Your task to perform on an android device: Go to Android settings Image 0: 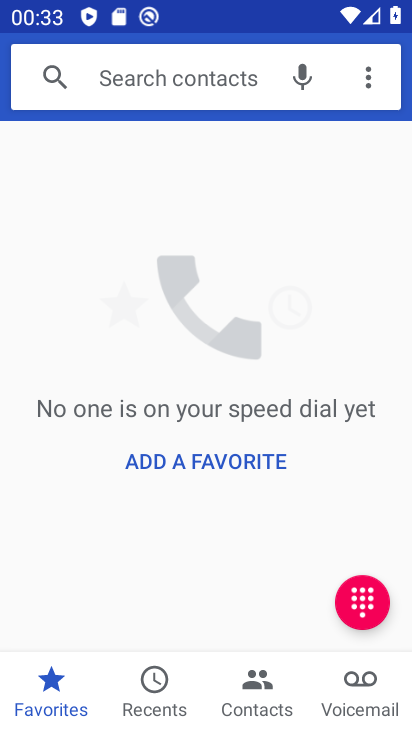
Step 0: press home button
Your task to perform on an android device: Go to Android settings Image 1: 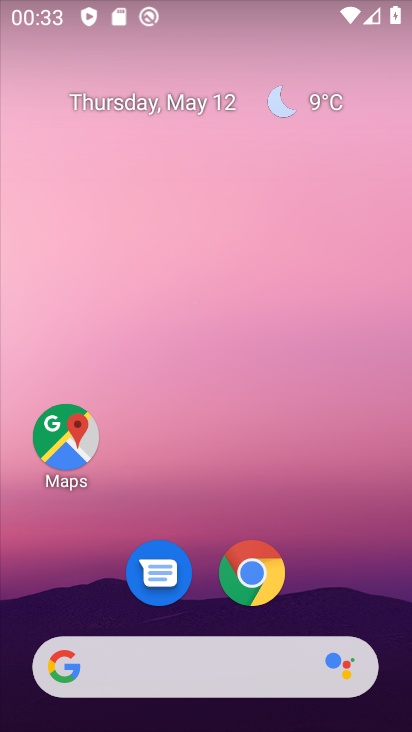
Step 1: drag from (200, 604) to (260, 14)
Your task to perform on an android device: Go to Android settings Image 2: 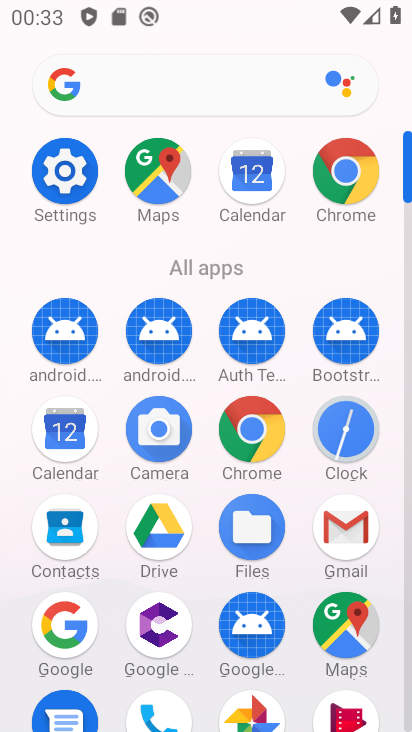
Step 2: click (68, 203)
Your task to perform on an android device: Go to Android settings Image 3: 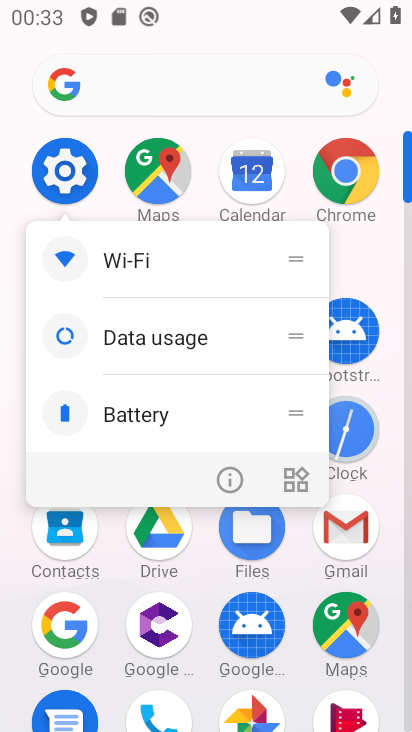
Step 3: click (68, 204)
Your task to perform on an android device: Go to Android settings Image 4: 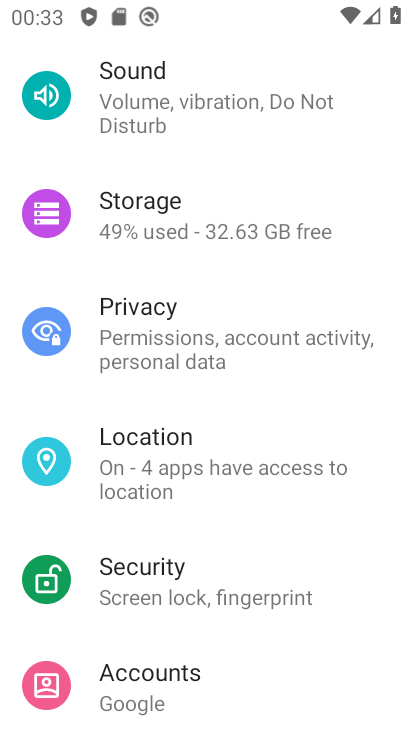
Step 4: drag from (178, 626) to (239, 183)
Your task to perform on an android device: Go to Android settings Image 5: 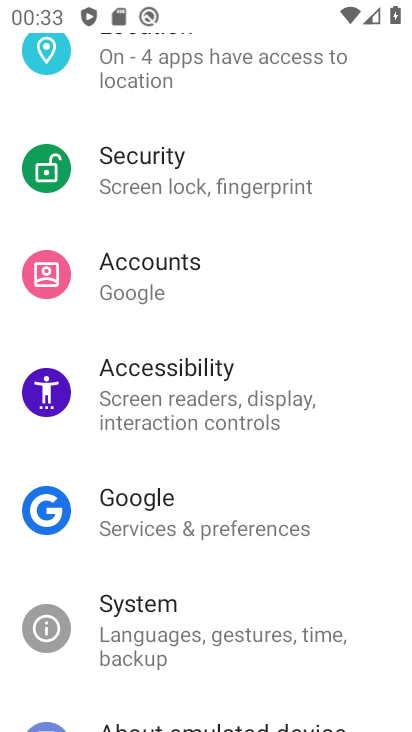
Step 5: drag from (198, 602) to (283, 57)
Your task to perform on an android device: Go to Android settings Image 6: 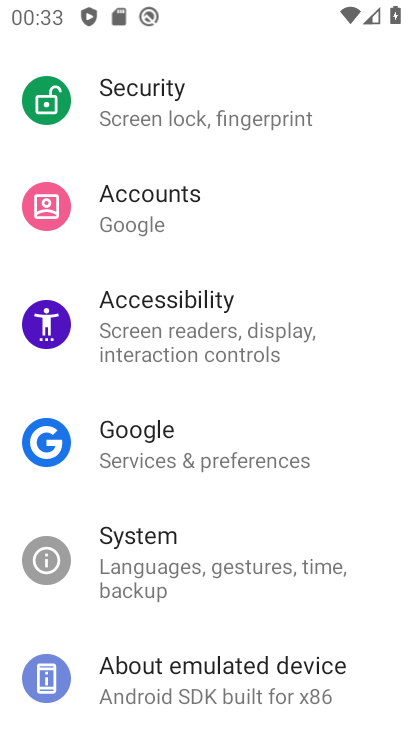
Step 6: click (204, 676)
Your task to perform on an android device: Go to Android settings Image 7: 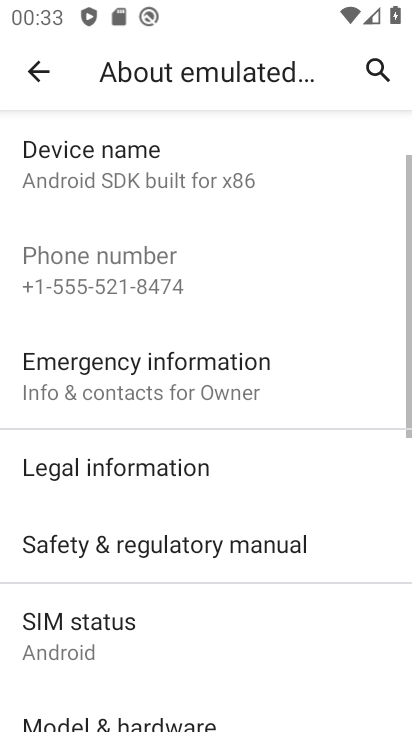
Step 7: drag from (134, 580) to (200, 115)
Your task to perform on an android device: Go to Android settings Image 8: 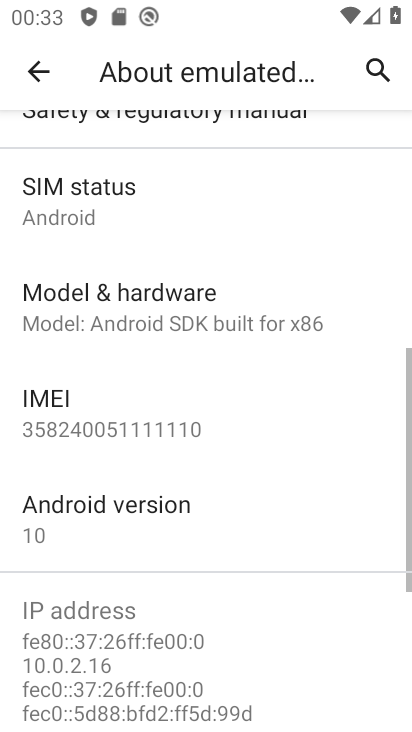
Step 8: click (91, 515)
Your task to perform on an android device: Go to Android settings Image 9: 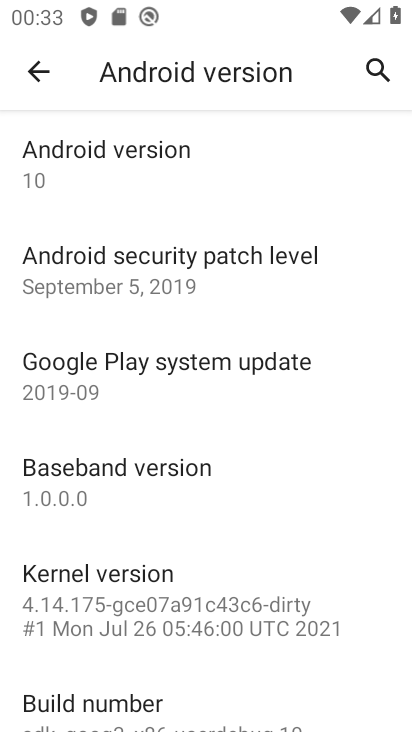
Step 9: task complete